Your task to perform on an android device: Is it going to rain today? Image 0: 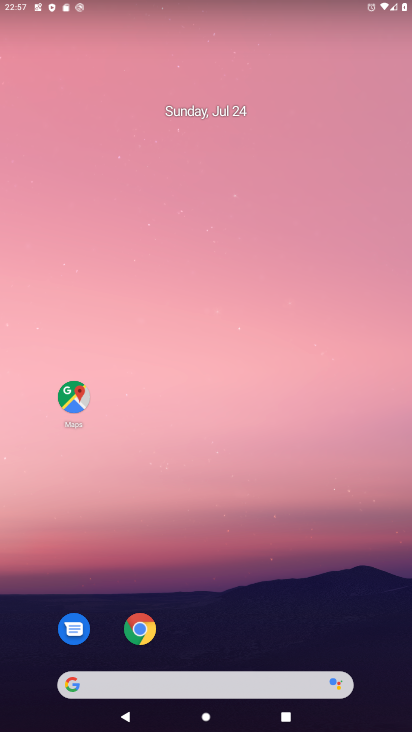
Step 0: drag from (208, 599) to (194, 210)
Your task to perform on an android device: Is it going to rain today? Image 1: 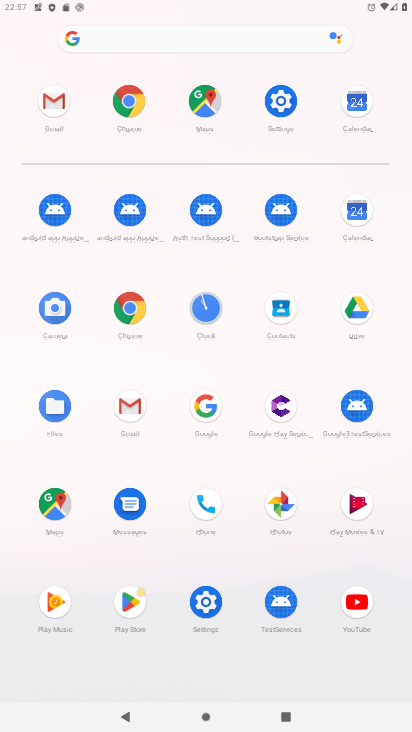
Step 1: click (147, 31)
Your task to perform on an android device: Is it going to rain today? Image 2: 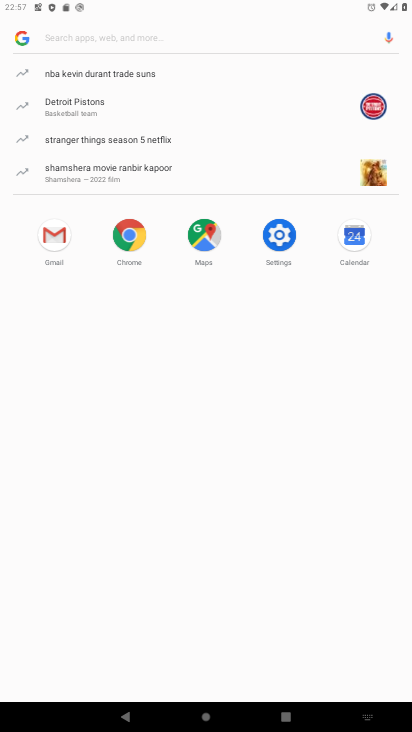
Step 2: type "Is it going to rain today?"
Your task to perform on an android device: Is it going to rain today? Image 3: 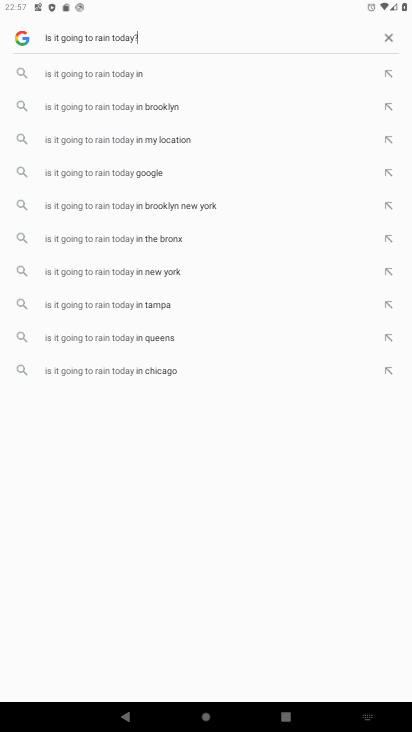
Step 3: type ""
Your task to perform on an android device: Is it going to rain today? Image 4: 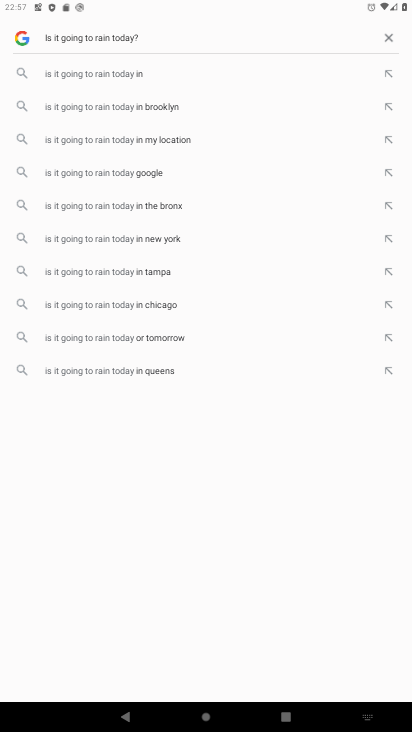
Step 4: click (109, 78)
Your task to perform on an android device: Is it going to rain today? Image 5: 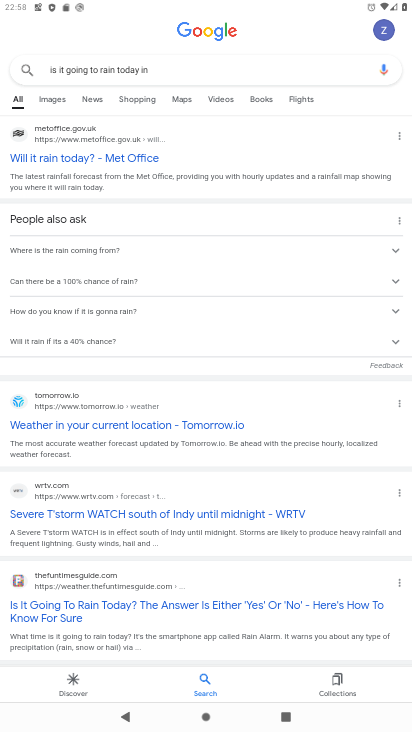
Step 5: task complete